Your task to perform on an android device: open app "LiveIn - Share Your Moment" Image 0: 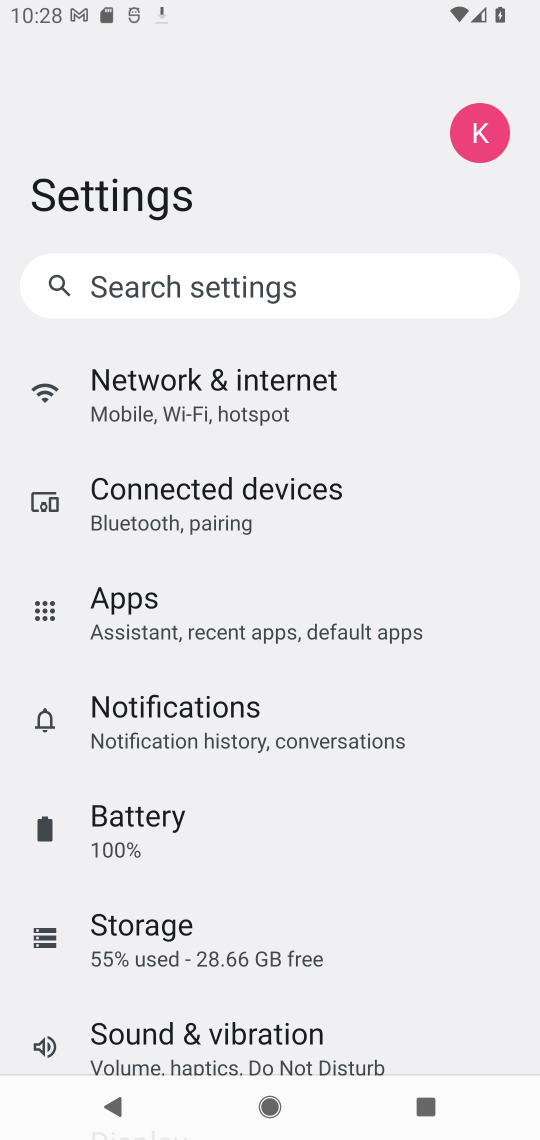
Step 0: press home button
Your task to perform on an android device: open app "LiveIn - Share Your Moment" Image 1: 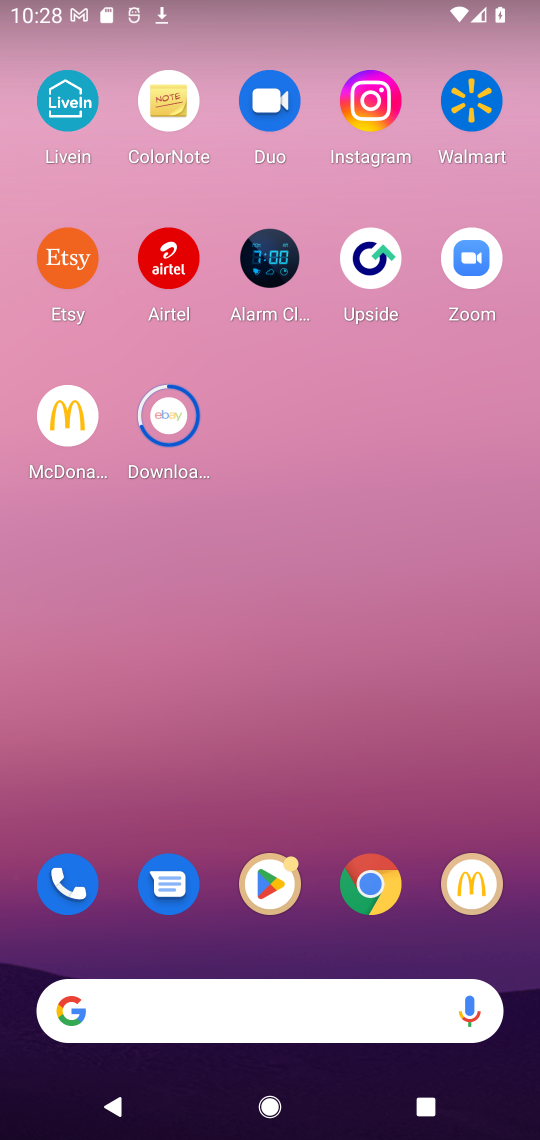
Step 1: click (269, 880)
Your task to perform on an android device: open app "LiveIn - Share Your Moment" Image 2: 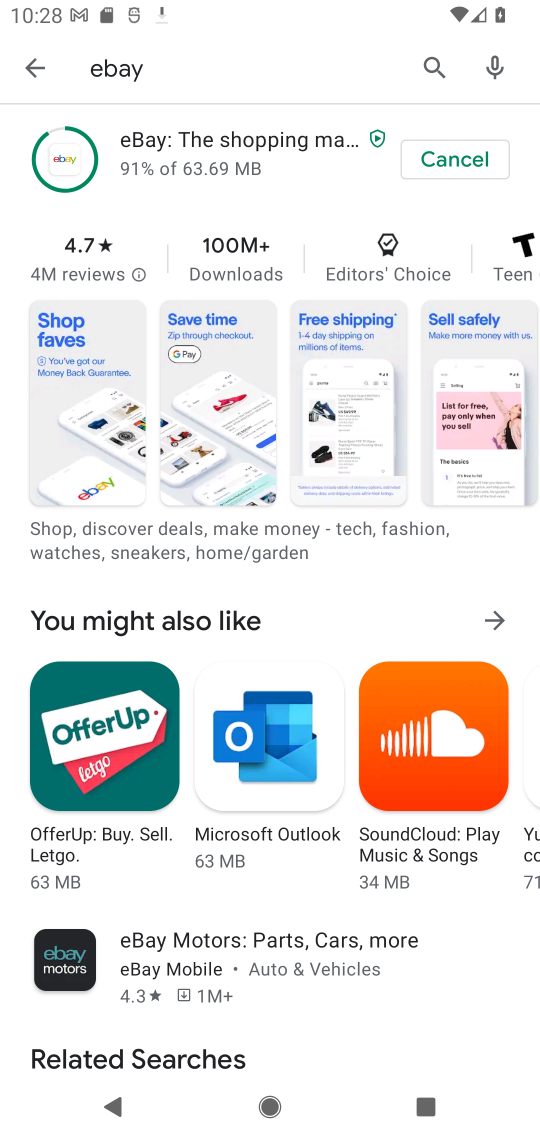
Step 2: click (415, 60)
Your task to perform on an android device: open app "LiveIn - Share Your Moment" Image 3: 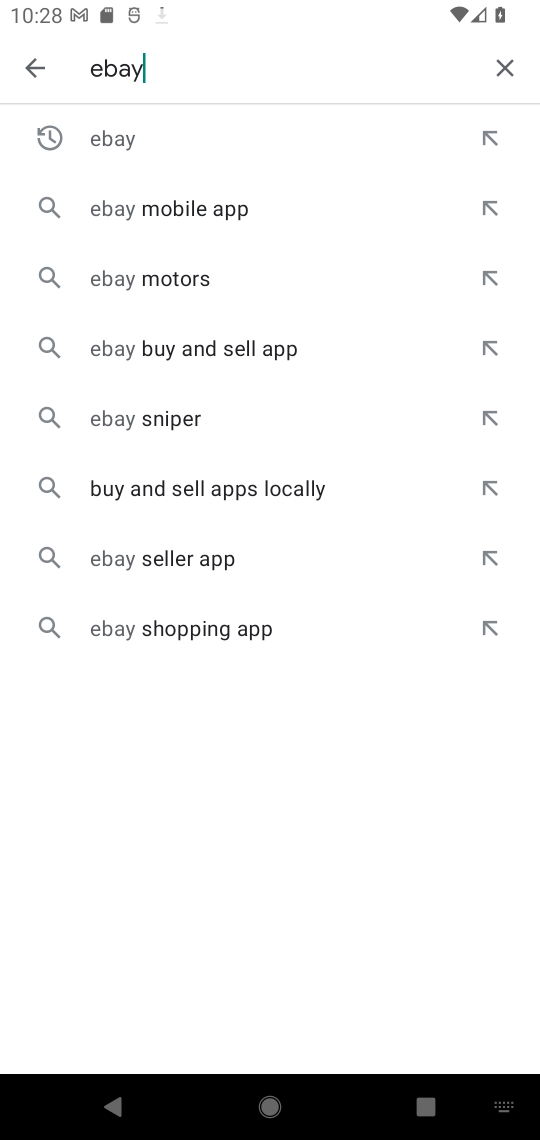
Step 3: click (498, 63)
Your task to perform on an android device: open app "LiveIn - Share Your Moment" Image 4: 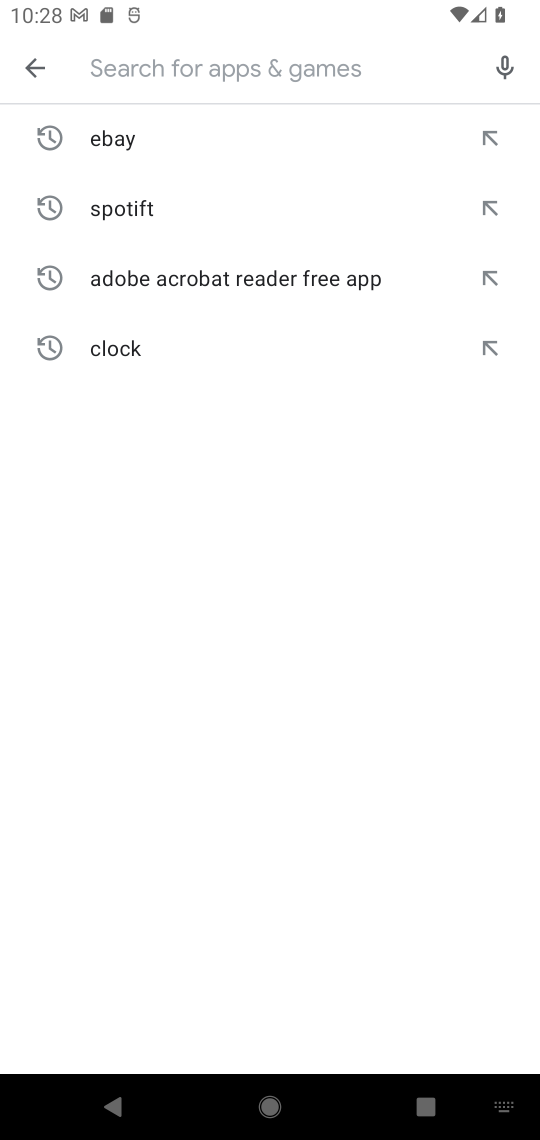
Step 4: type "livein"
Your task to perform on an android device: open app "LiveIn - Share Your Moment" Image 5: 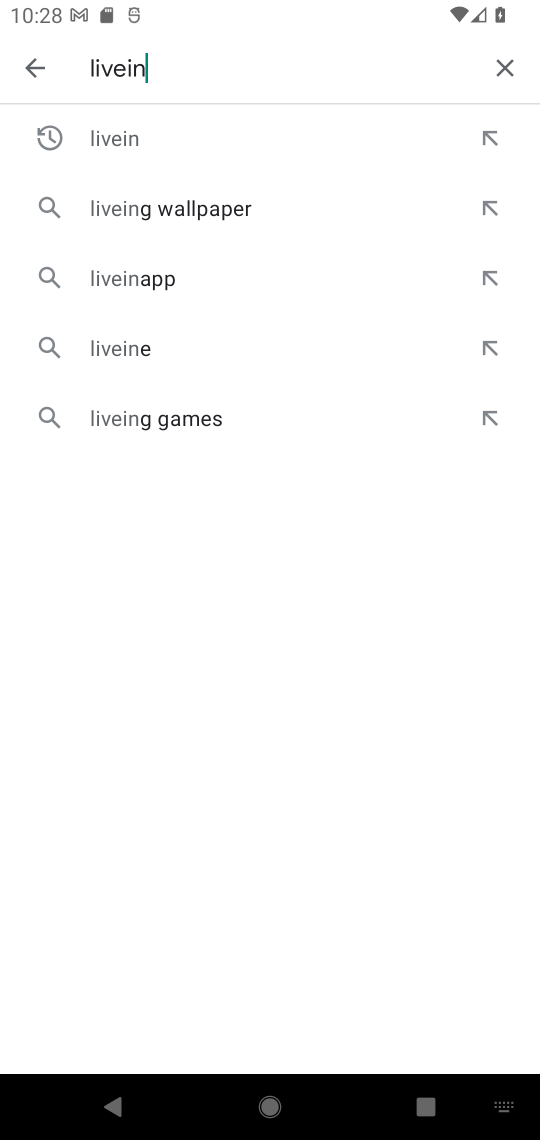
Step 5: click (163, 127)
Your task to perform on an android device: open app "LiveIn - Share Your Moment" Image 6: 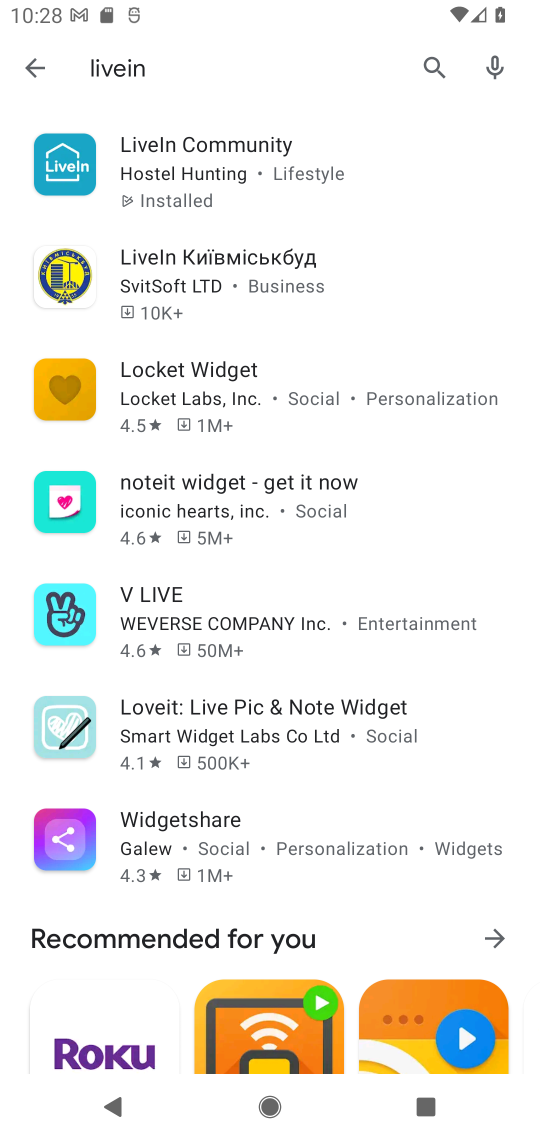
Step 6: click (332, 172)
Your task to perform on an android device: open app "LiveIn - Share Your Moment" Image 7: 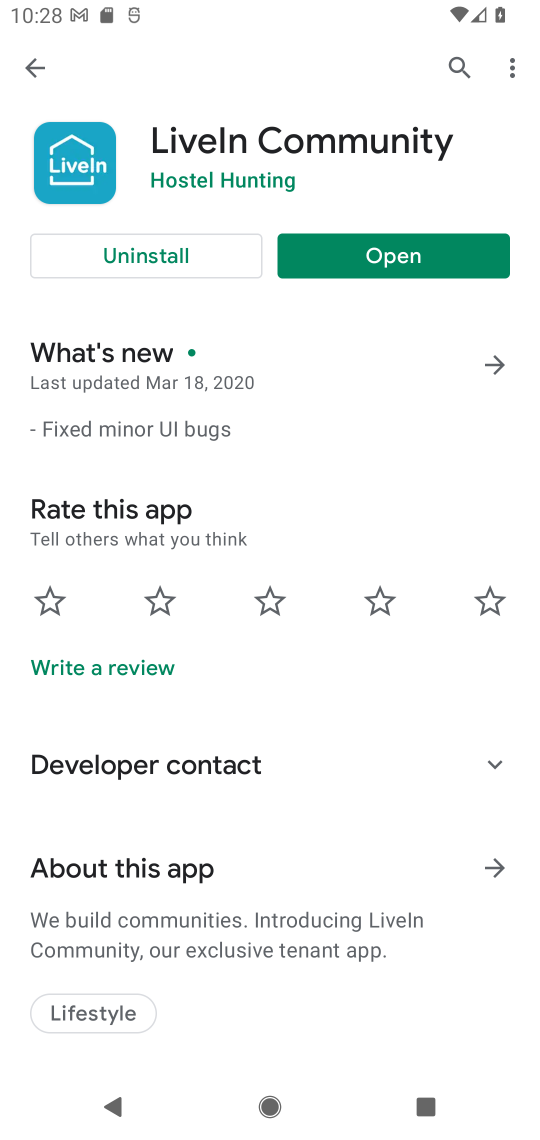
Step 7: click (332, 172)
Your task to perform on an android device: open app "LiveIn - Share Your Moment" Image 8: 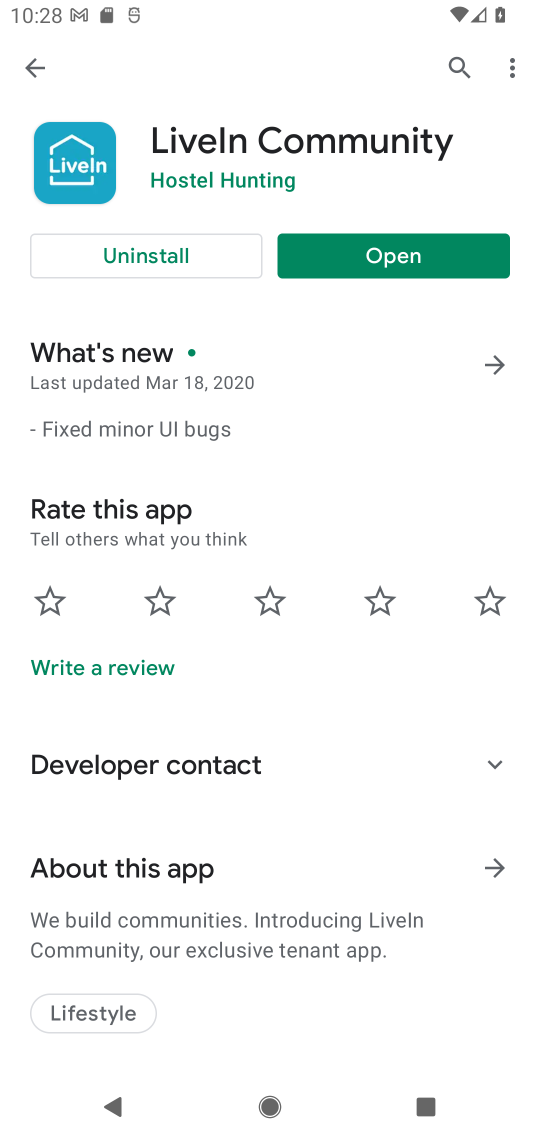
Step 8: task complete